Your task to perform on an android device: open device folders in google photos Image 0: 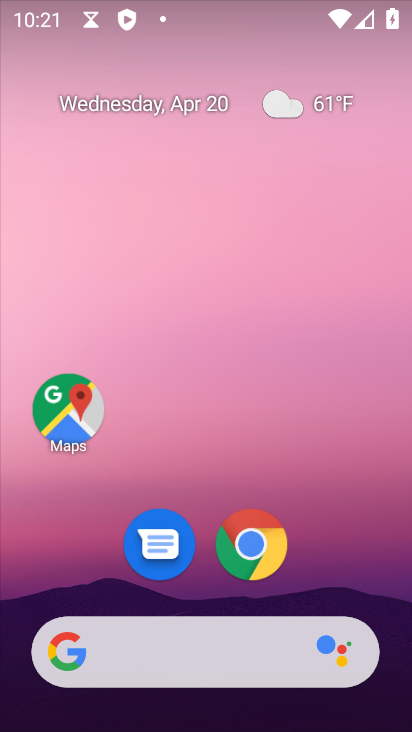
Step 0: drag from (182, 656) to (355, 42)
Your task to perform on an android device: open device folders in google photos Image 1: 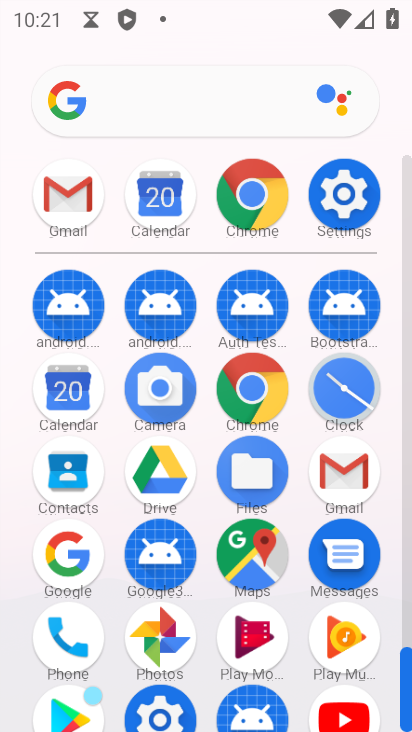
Step 1: click (160, 637)
Your task to perform on an android device: open device folders in google photos Image 2: 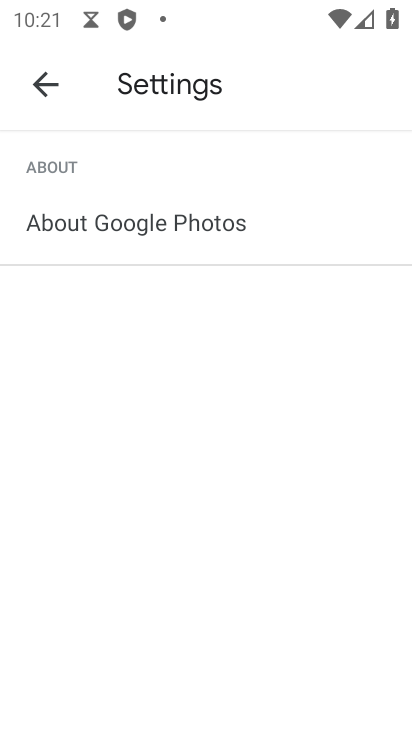
Step 2: click (46, 81)
Your task to perform on an android device: open device folders in google photos Image 3: 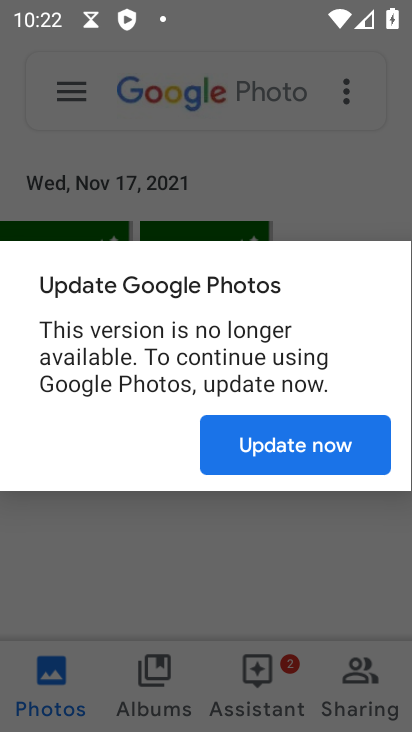
Step 3: click (271, 456)
Your task to perform on an android device: open device folders in google photos Image 4: 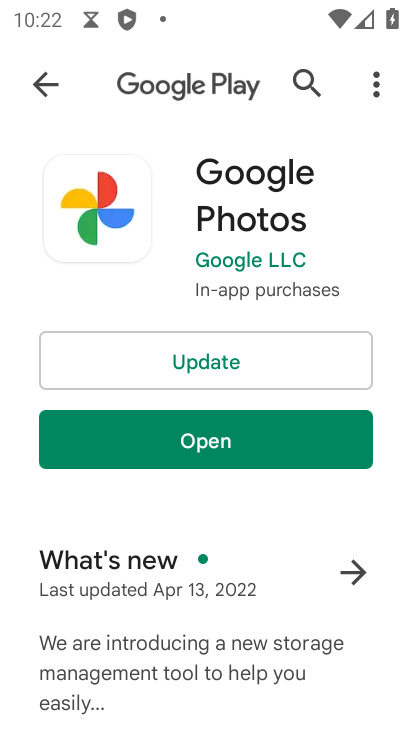
Step 4: click (188, 435)
Your task to perform on an android device: open device folders in google photos Image 5: 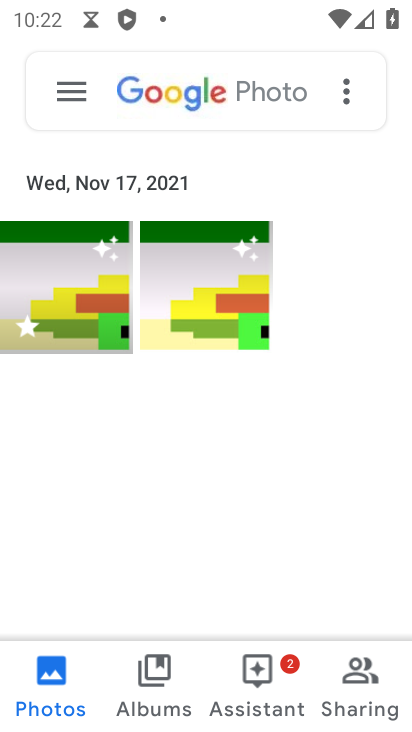
Step 5: click (55, 91)
Your task to perform on an android device: open device folders in google photos Image 6: 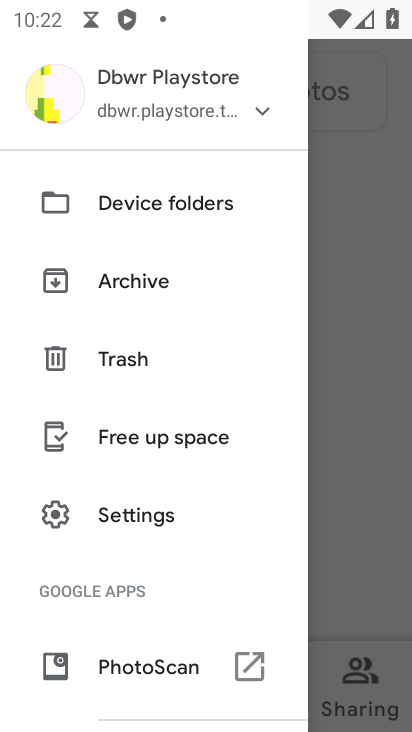
Step 6: click (123, 204)
Your task to perform on an android device: open device folders in google photos Image 7: 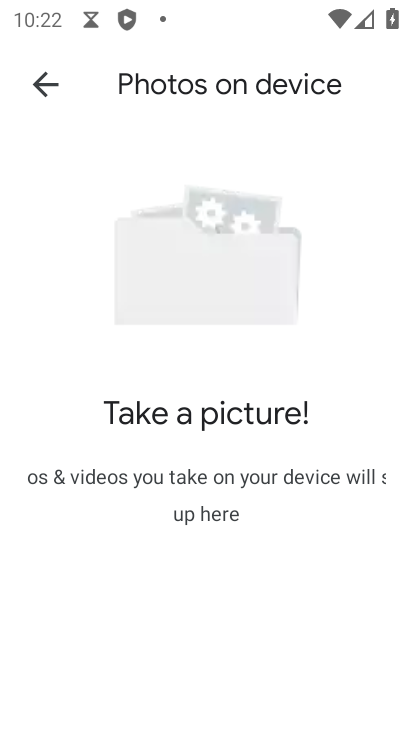
Step 7: task complete